Your task to perform on an android device: Go to Google Image 0: 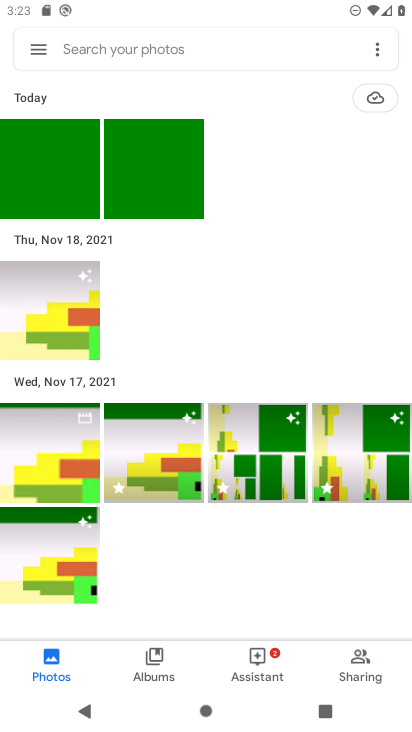
Step 0: press home button
Your task to perform on an android device: Go to Google Image 1: 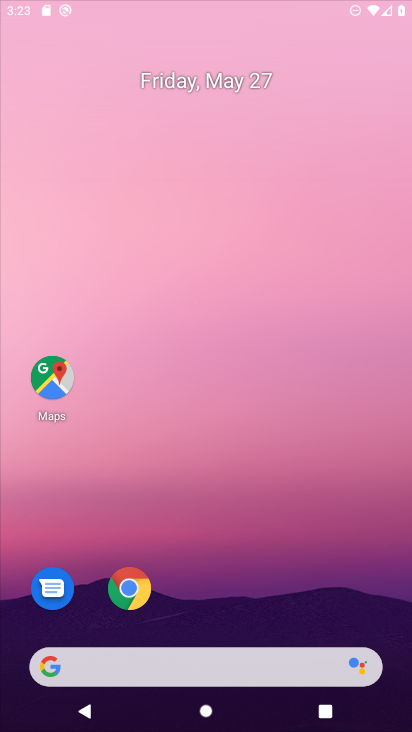
Step 1: click (344, 570)
Your task to perform on an android device: Go to Google Image 2: 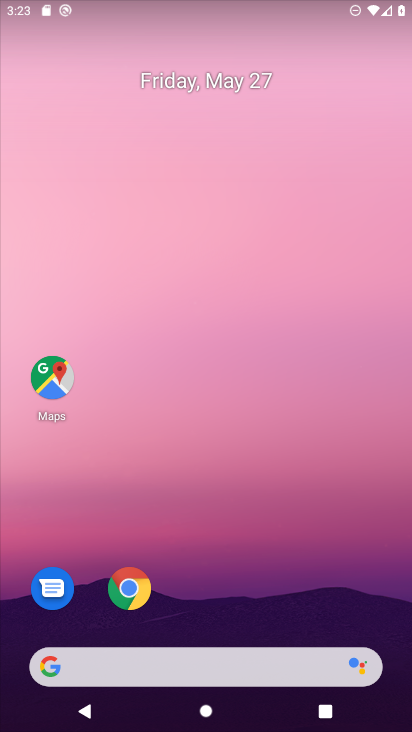
Step 2: drag from (344, 570) to (269, 28)
Your task to perform on an android device: Go to Google Image 3: 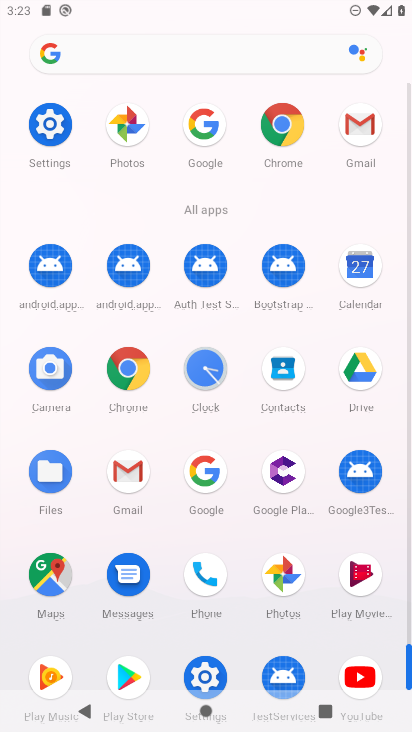
Step 3: click (214, 474)
Your task to perform on an android device: Go to Google Image 4: 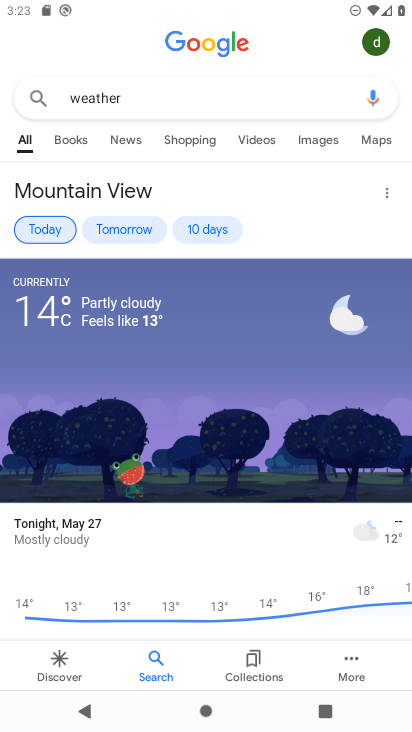
Step 4: task complete